Your task to perform on an android device: change the upload size in google photos Image 0: 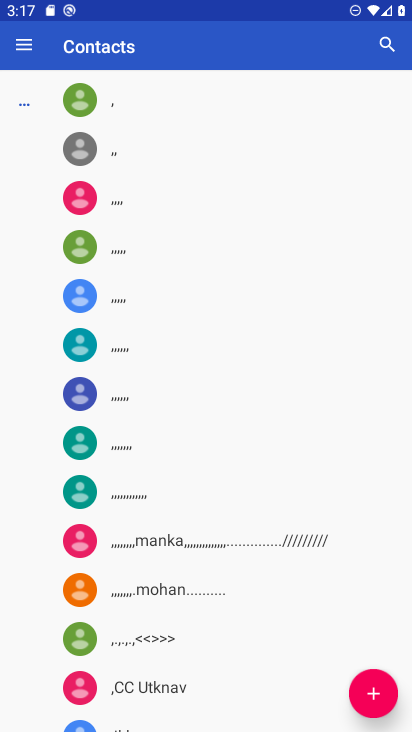
Step 0: press home button
Your task to perform on an android device: change the upload size in google photos Image 1: 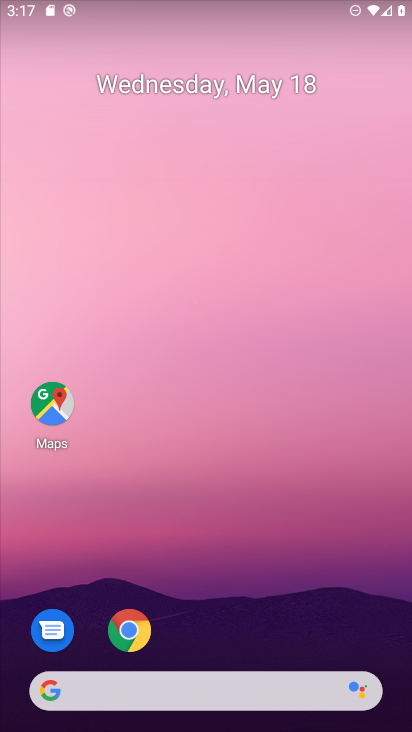
Step 1: drag from (213, 640) to (278, 116)
Your task to perform on an android device: change the upload size in google photos Image 2: 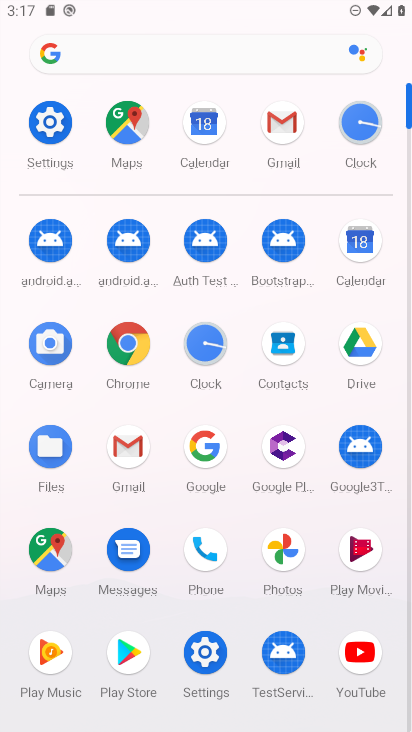
Step 2: click (291, 540)
Your task to perform on an android device: change the upload size in google photos Image 3: 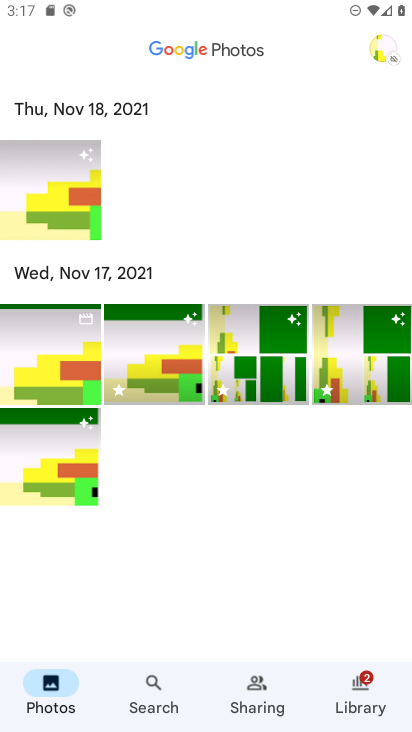
Step 3: click (375, 53)
Your task to perform on an android device: change the upload size in google photos Image 4: 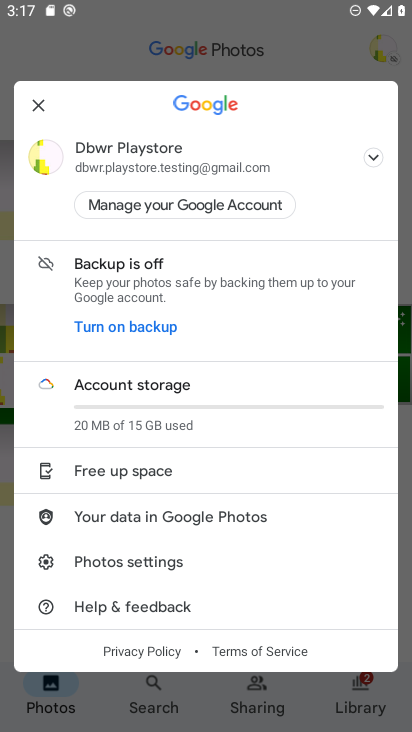
Step 4: click (135, 552)
Your task to perform on an android device: change the upload size in google photos Image 5: 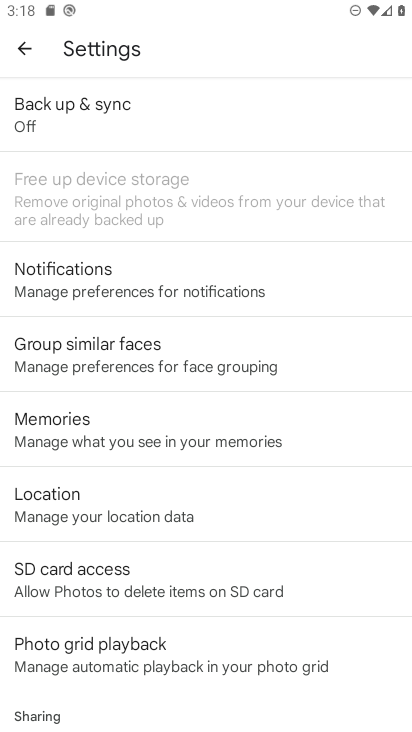
Step 5: click (111, 107)
Your task to perform on an android device: change the upload size in google photos Image 6: 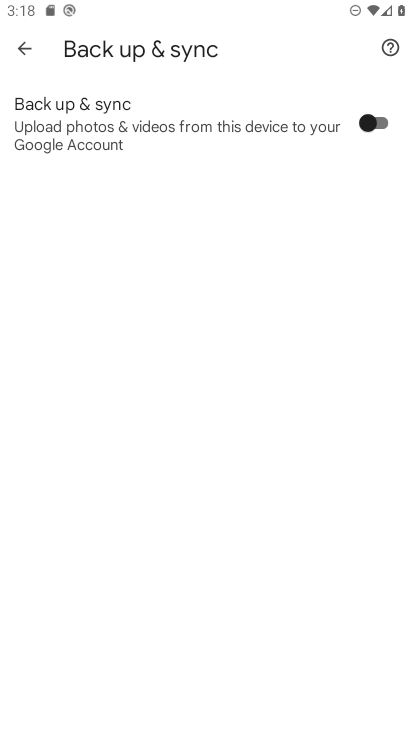
Step 6: click (368, 113)
Your task to perform on an android device: change the upload size in google photos Image 7: 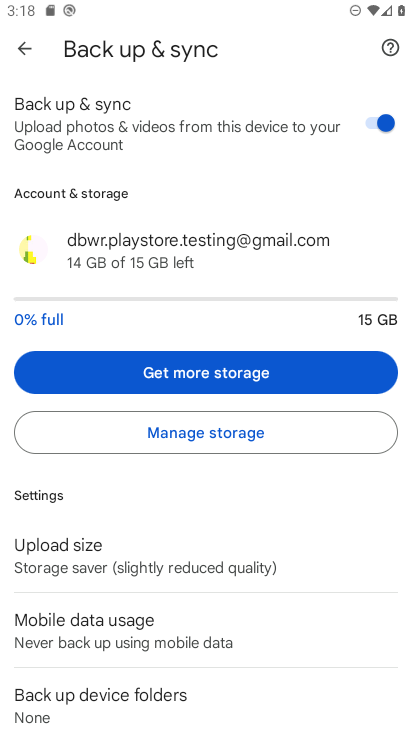
Step 7: click (146, 550)
Your task to perform on an android device: change the upload size in google photos Image 8: 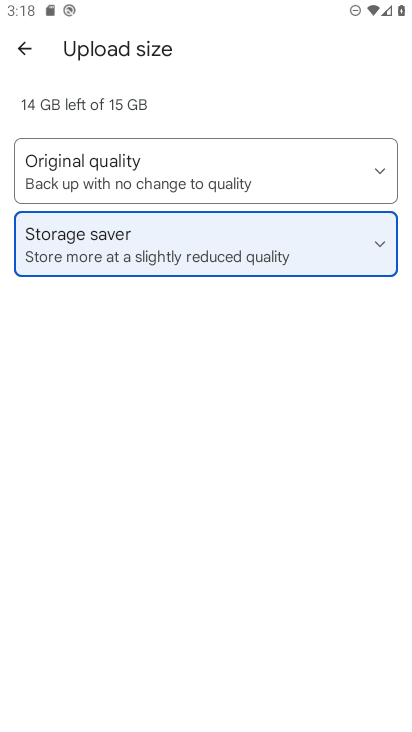
Step 8: click (241, 163)
Your task to perform on an android device: change the upload size in google photos Image 9: 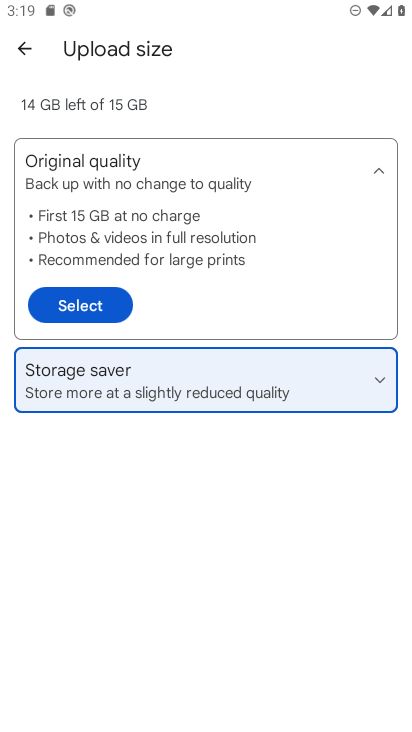
Step 9: click (95, 295)
Your task to perform on an android device: change the upload size in google photos Image 10: 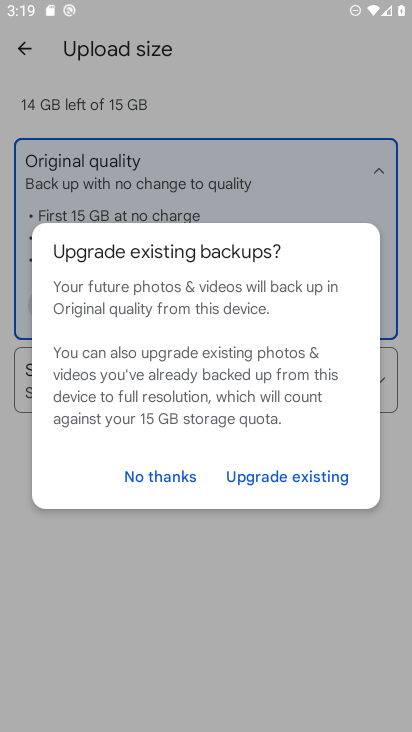
Step 10: task complete